Your task to perform on an android device: turn off javascript in the chrome app Image 0: 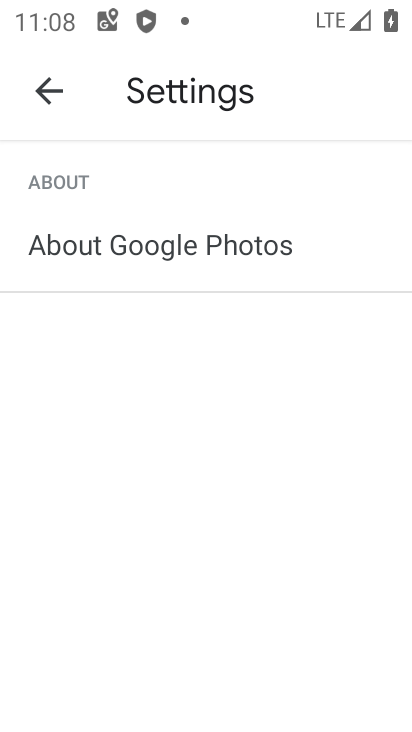
Step 0: press home button
Your task to perform on an android device: turn off javascript in the chrome app Image 1: 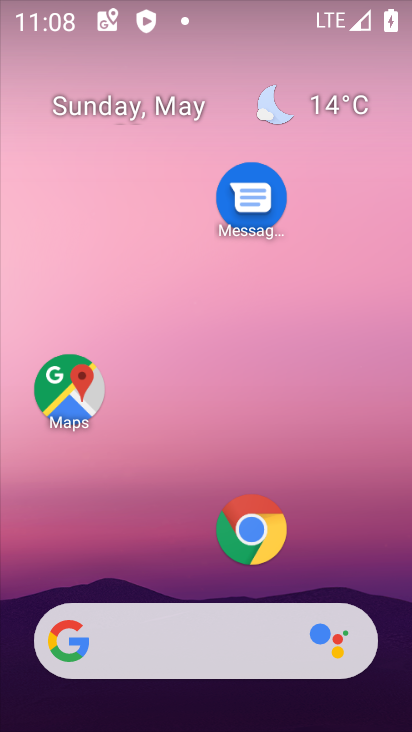
Step 1: click (252, 513)
Your task to perform on an android device: turn off javascript in the chrome app Image 2: 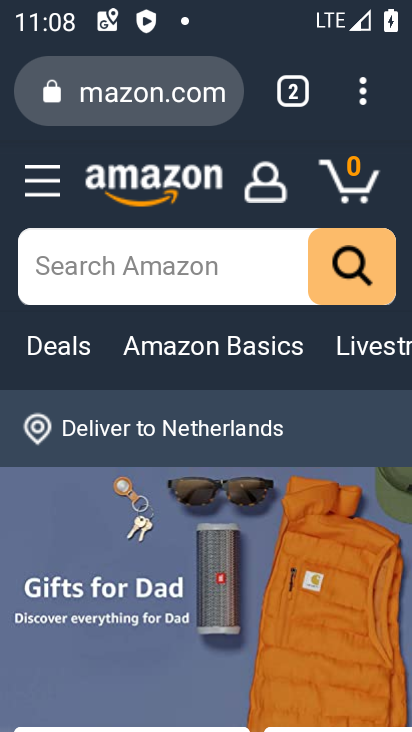
Step 2: click (361, 86)
Your task to perform on an android device: turn off javascript in the chrome app Image 3: 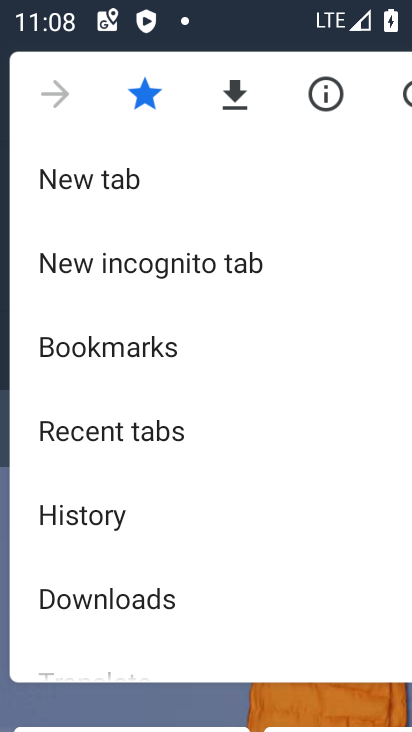
Step 3: drag from (48, 620) to (49, 341)
Your task to perform on an android device: turn off javascript in the chrome app Image 4: 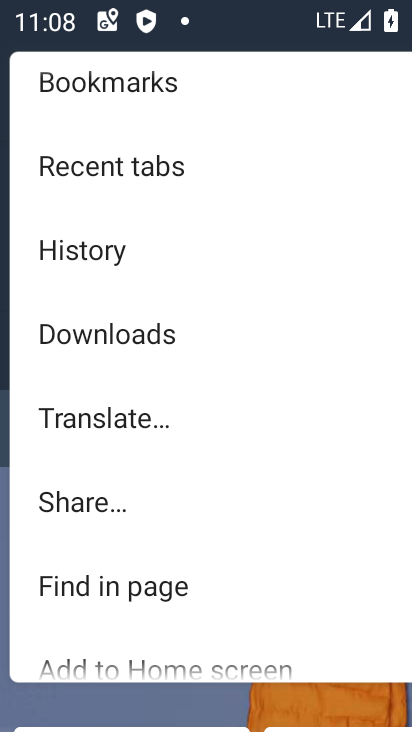
Step 4: drag from (150, 604) to (197, 44)
Your task to perform on an android device: turn off javascript in the chrome app Image 5: 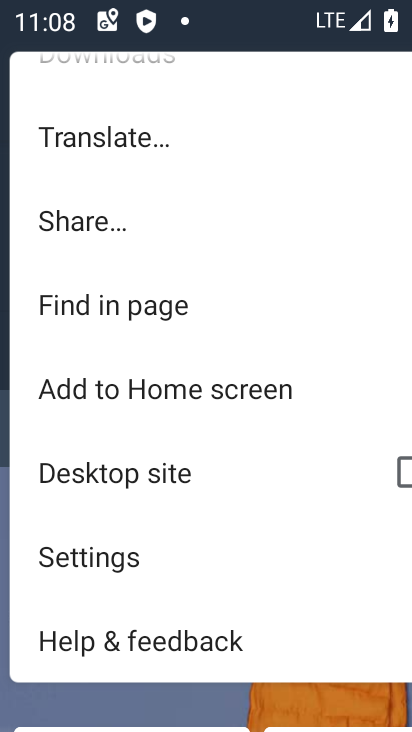
Step 5: click (52, 563)
Your task to perform on an android device: turn off javascript in the chrome app Image 6: 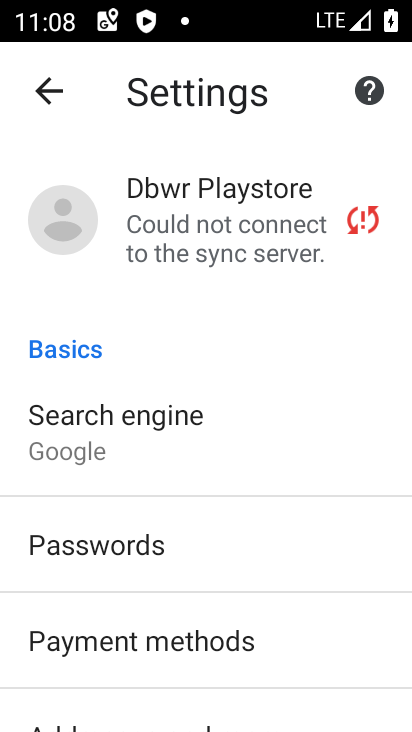
Step 6: drag from (107, 532) to (165, 8)
Your task to perform on an android device: turn off javascript in the chrome app Image 7: 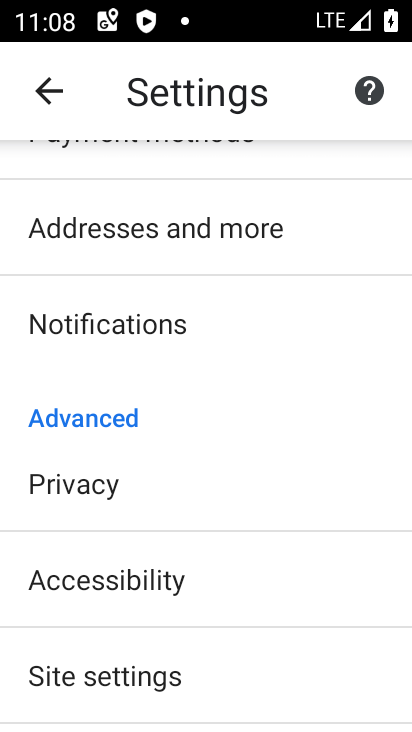
Step 7: click (194, 689)
Your task to perform on an android device: turn off javascript in the chrome app Image 8: 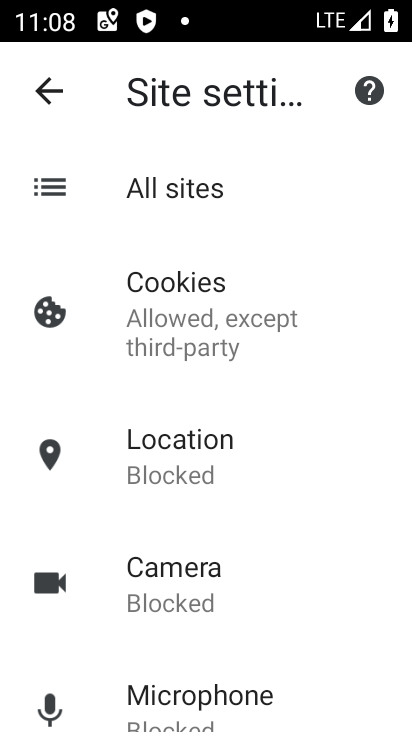
Step 8: drag from (200, 637) to (216, 230)
Your task to perform on an android device: turn off javascript in the chrome app Image 9: 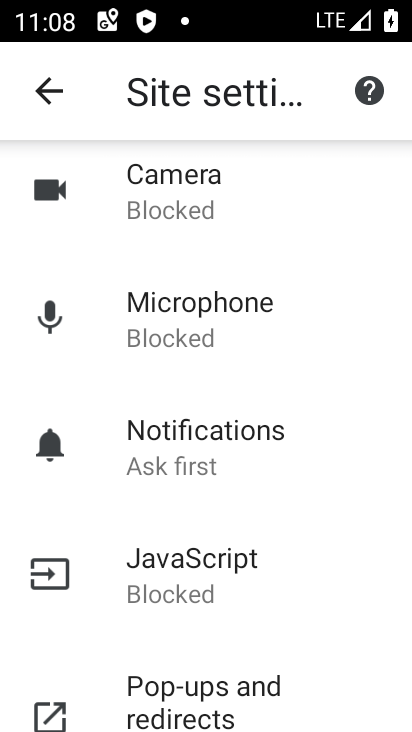
Step 9: click (248, 603)
Your task to perform on an android device: turn off javascript in the chrome app Image 10: 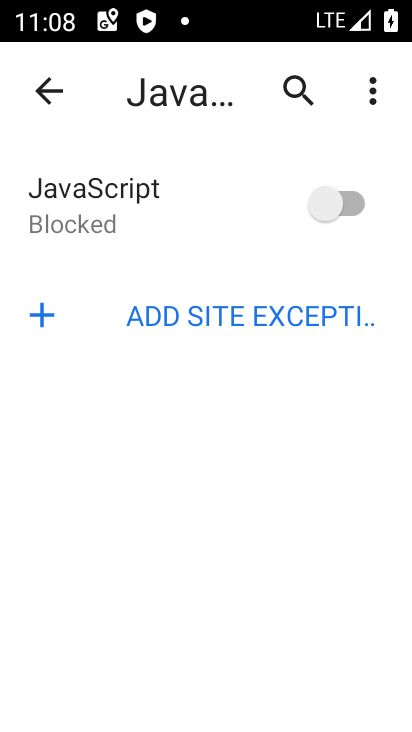
Step 10: task complete